Your task to perform on an android device: open app "Facebook Messenger" Image 0: 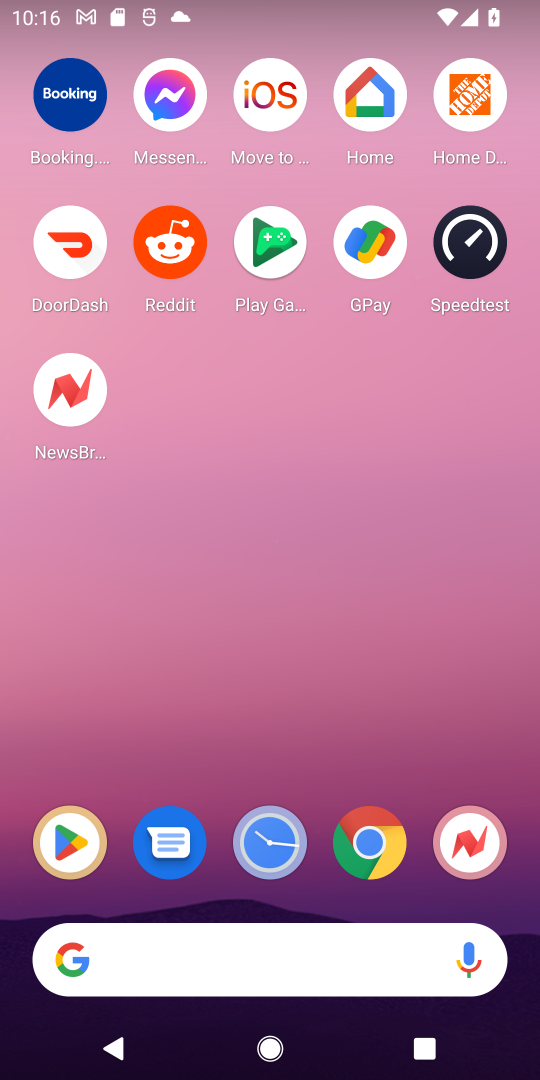
Step 0: click (56, 837)
Your task to perform on an android device: open app "Facebook Messenger" Image 1: 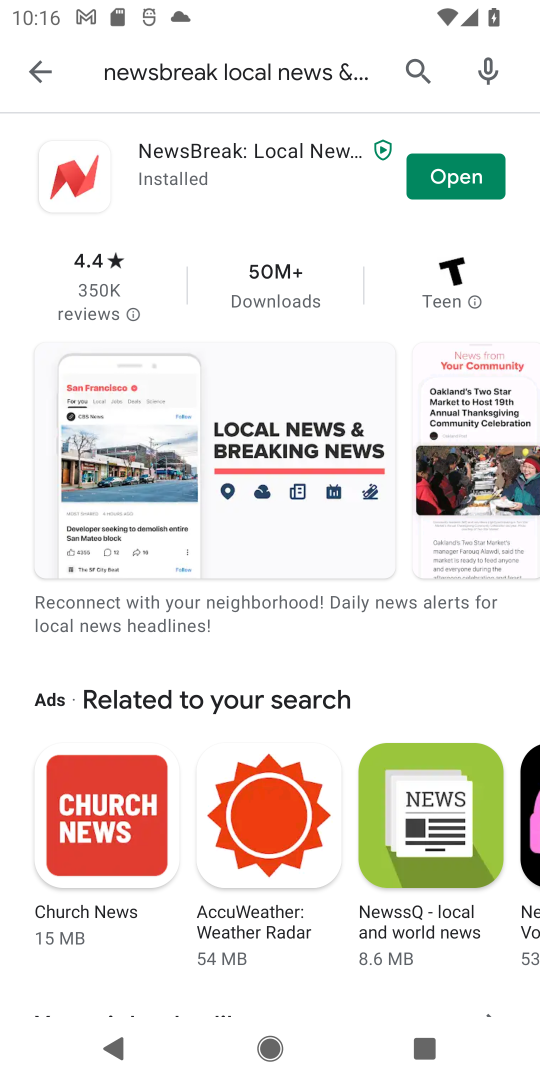
Step 1: click (414, 77)
Your task to perform on an android device: open app "Facebook Messenger" Image 2: 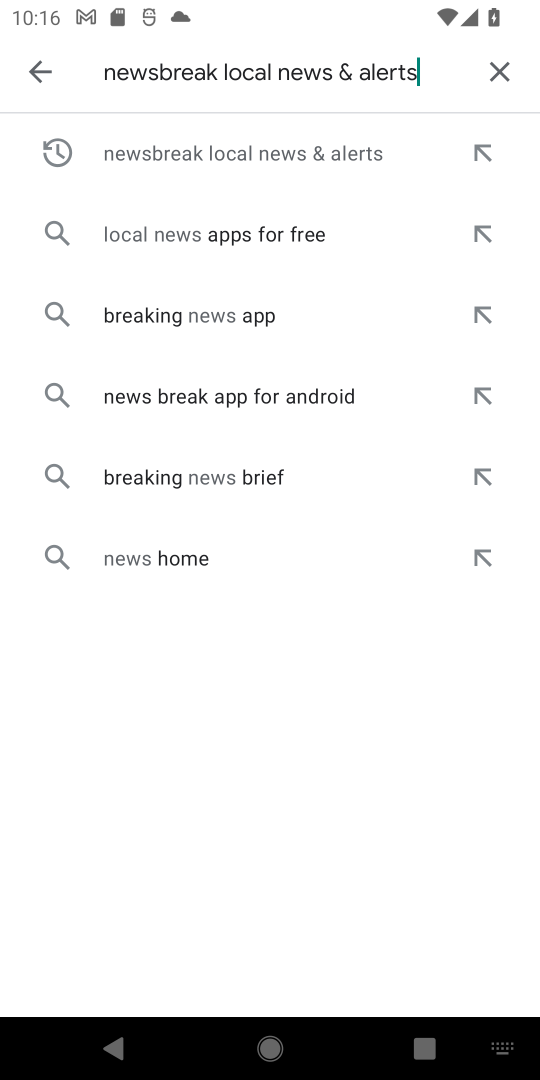
Step 2: click (495, 72)
Your task to perform on an android device: open app "Facebook Messenger" Image 3: 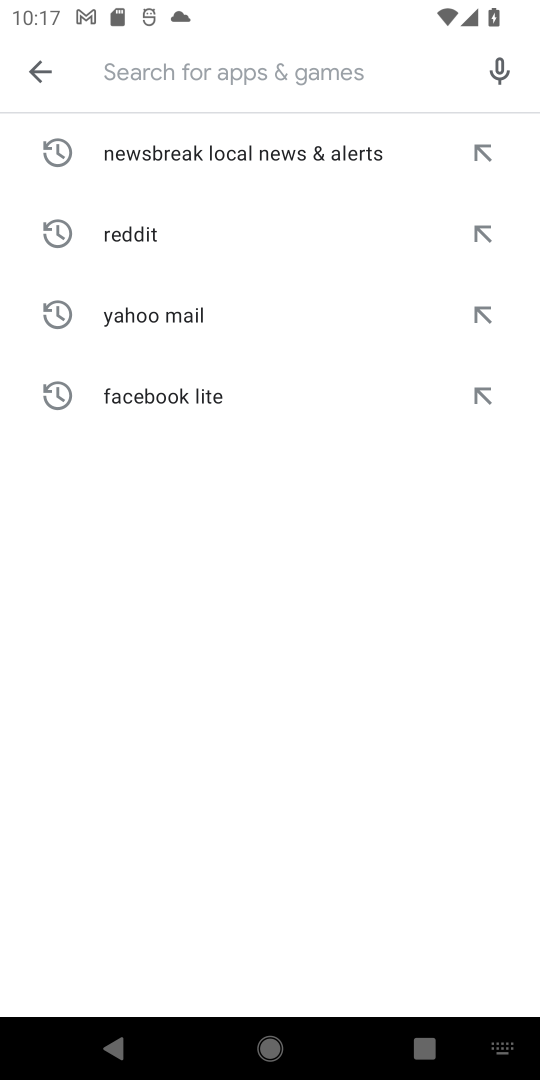
Step 3: click (207, 70)
Your task to perform on an android device: open app "Facebook Messenger" Image 4: 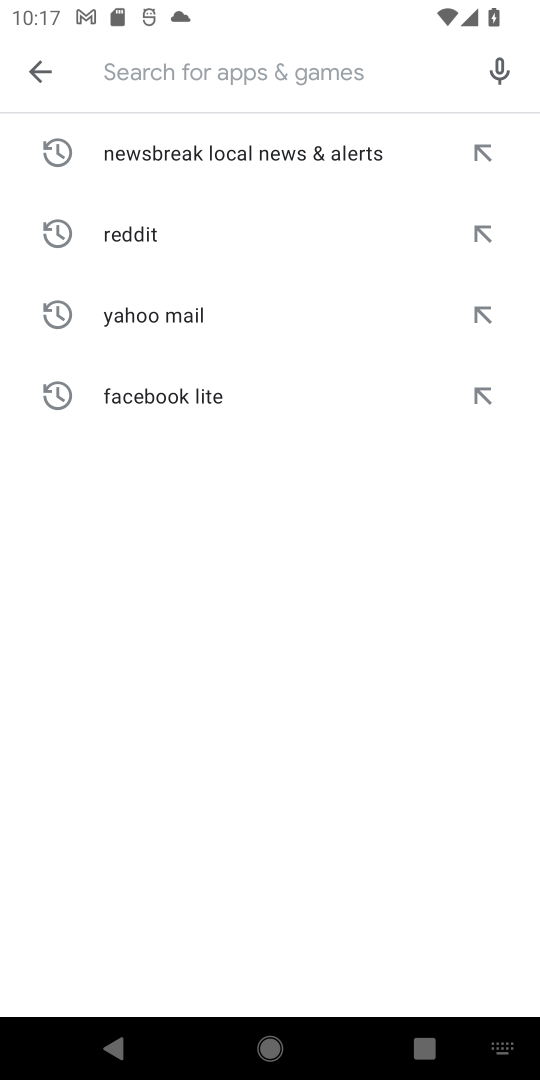
Step 4: type "Facebook Messenger"
Your task to perform on an android device: open app "Facebook Messenger" Image 5: 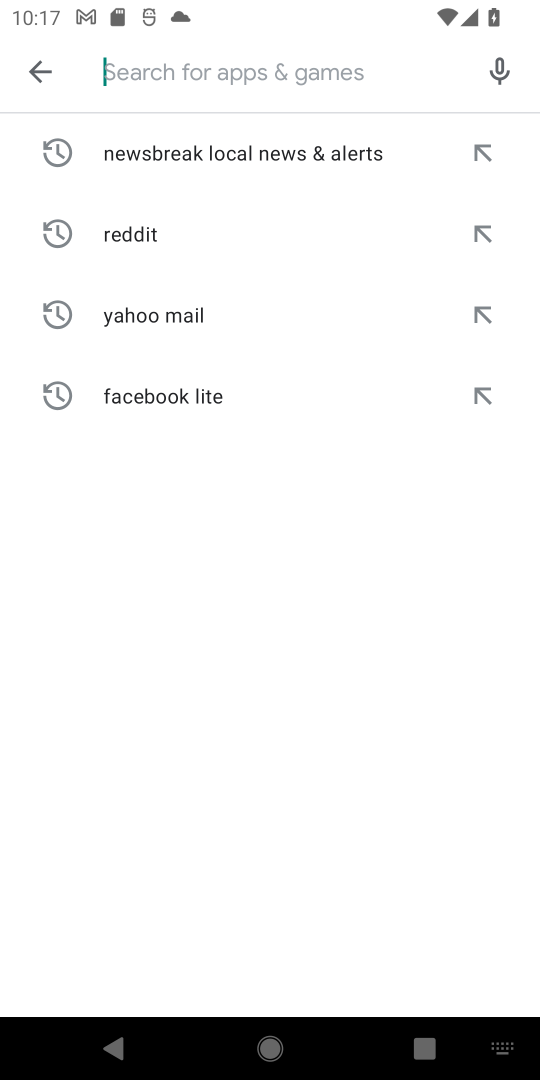
Step 5: click (208, 638)
Your task to perform on an android device: open app "Facebook Messenger" Image 6: 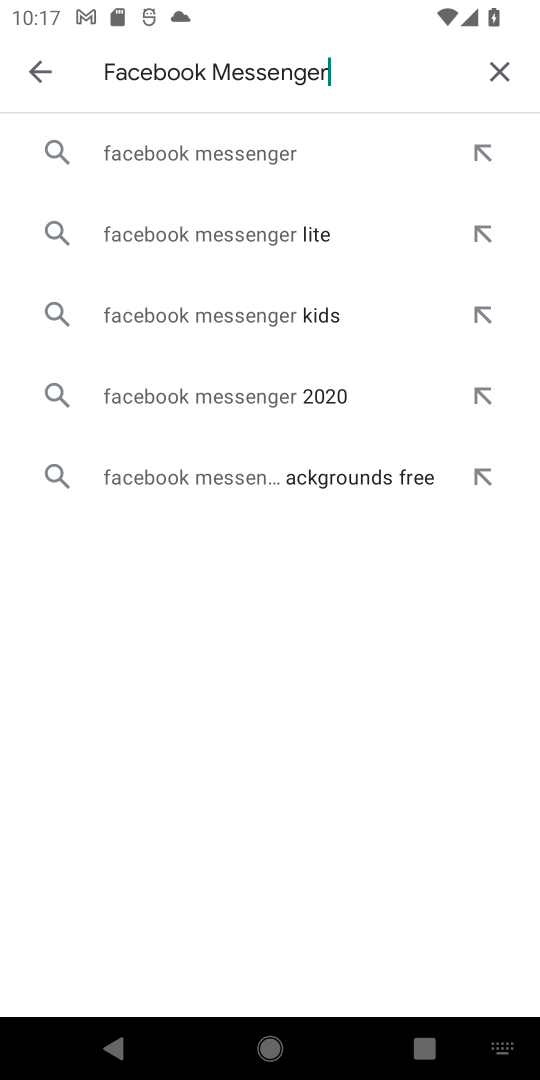
Step 6: click (233, 144)
Your task to perform on an android device: open app "Facebook Messenger" Image 7: 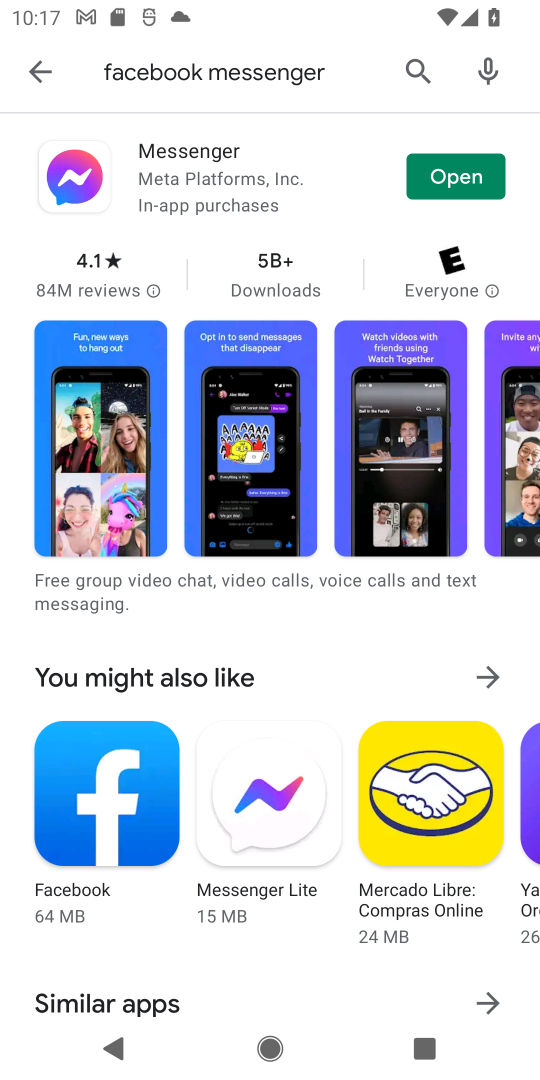
Step 7: click (485, 168)
Your task to perform on an android device: open app "Facebook Messenger" Image 8: 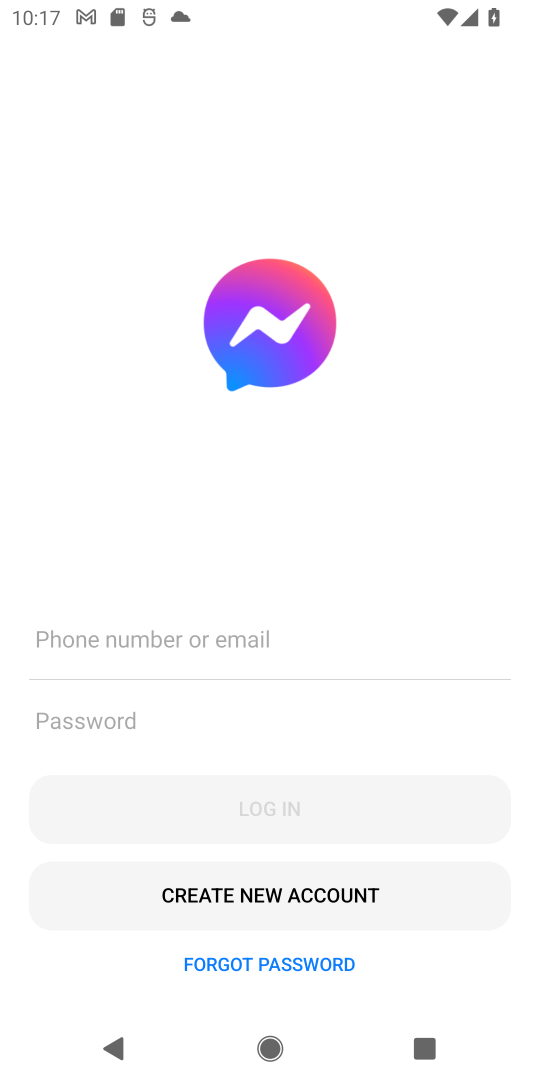
Step 8: task complete